Your task to perform on an android device: Go to ESPN.com Image 0: 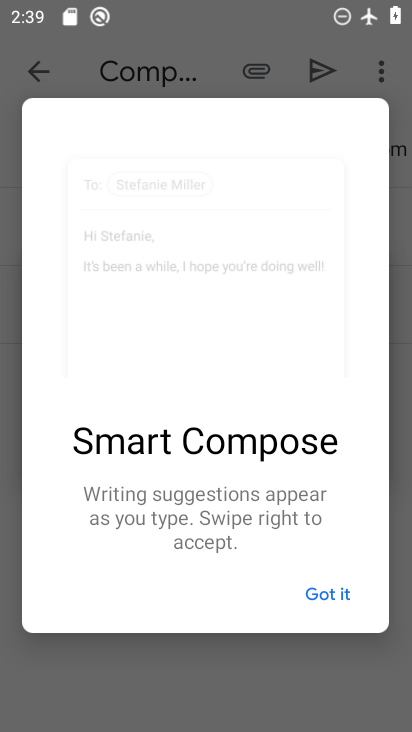
Step 0: press home button
Your task to perform on an android device: Go to ESPN.com Image 1: 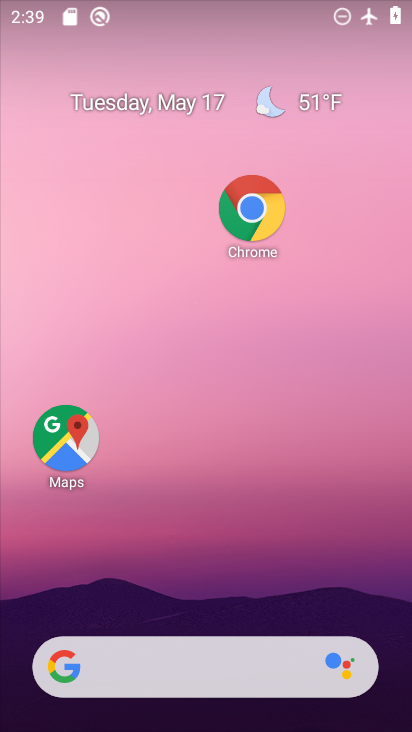
Step 1: drag from (182, 625) to (217, 0)
Your task to perform on an android device: Go to ESPN.com Image 2: 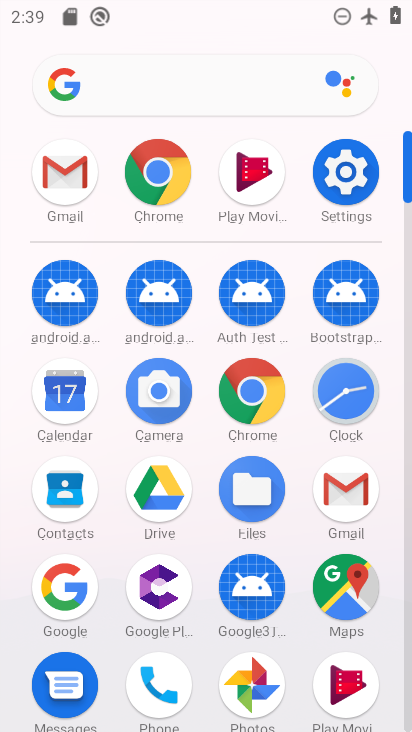
Step 2: click (168, 179)
Your task to perform on an android device: Go to ESPN.com Image 3: 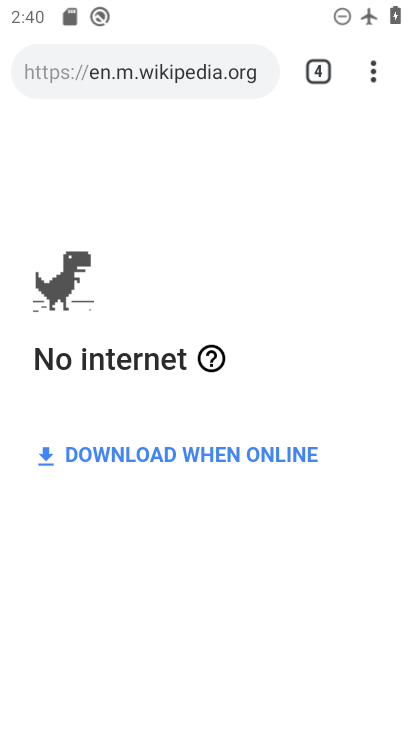
Step 3: click (325, 74)
Your task to perform on an android device: Go to ESPN.com Image 4: 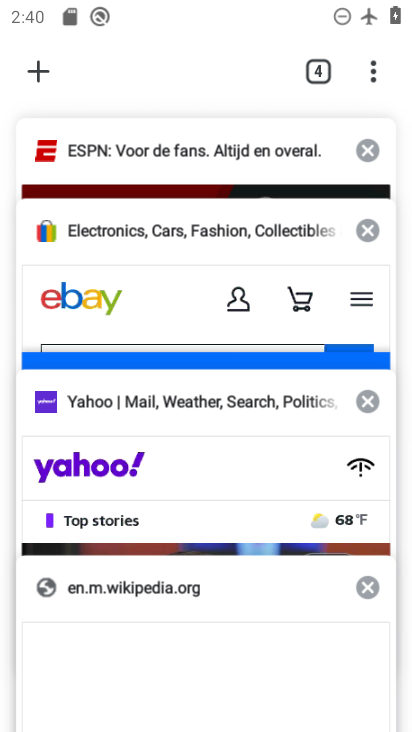
Step 4: click (43, 66)
Your task to perform on an android device: Go to ESPN.com Image 5: 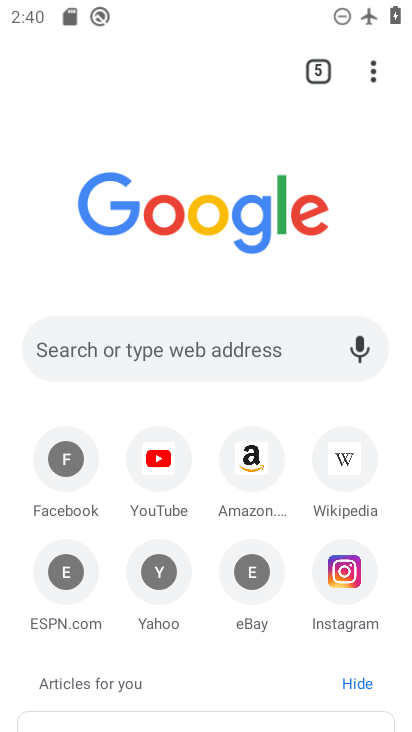
Step 5: click (331, 66)
Your task to perform on an android device: Go to ESPN.com Image 6: 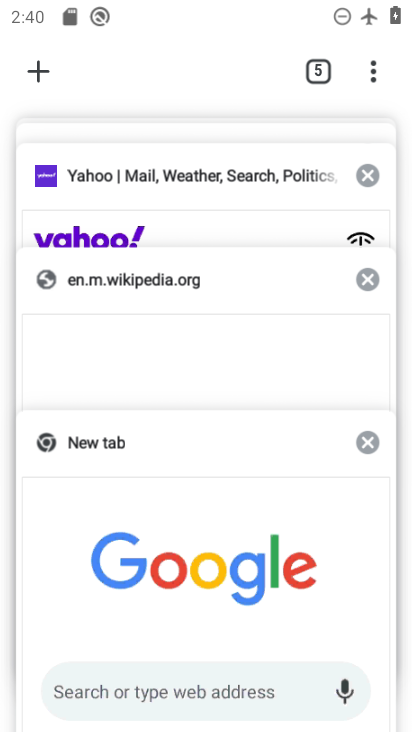
Step 6: drag from (115, 187) to (87, 401)
Your task to perform on an android device: Go to ESPN.com Image 7: 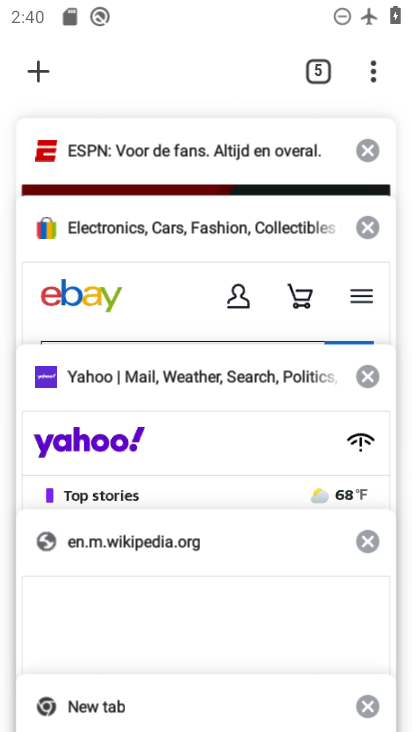
Step 7: click (96, 150)
Your task to perform on an android device: Go to ESPN.com Image 8: 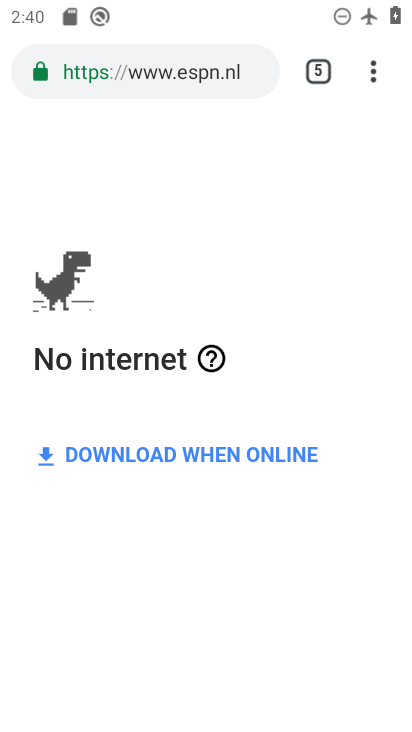
Step 8: task complete